Your task to perform on an android device: all mails in gmail Image 0: 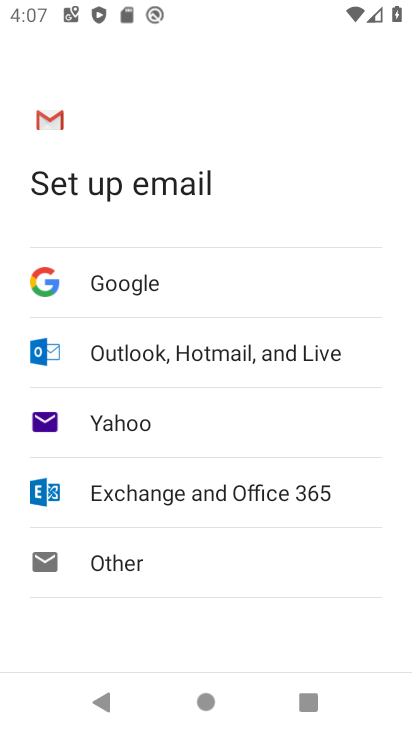
Step 0: press home button
Your task to perform on an android device: all mails in gmail Image 1: 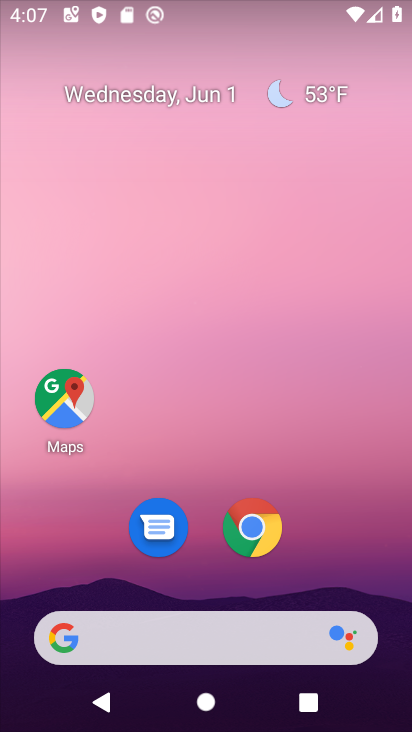
Step 1: drag from (305, 543) to (351, 42)
Your task to perform on an android device: all mails in gmail Image 2: 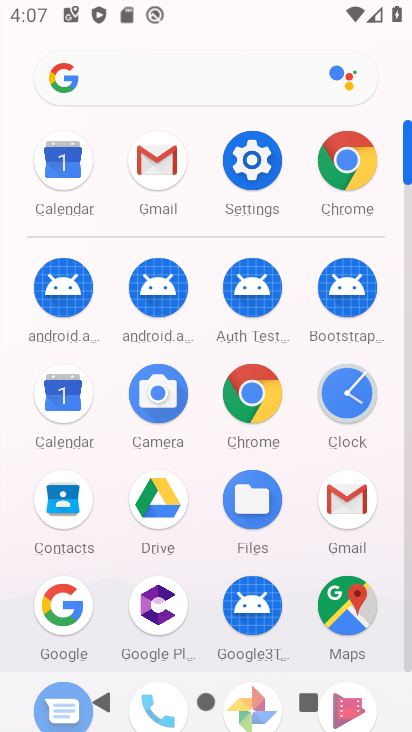
Step 2: click (161, 157)
Your task to perform on an android device: all mails in gmail Image 3: 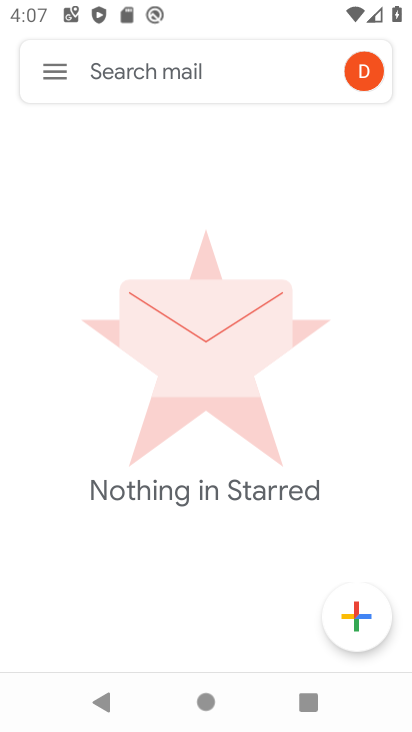
Step 3: click (56, 66)
Your task to perform on an android device: all mails in gmail Image 4: 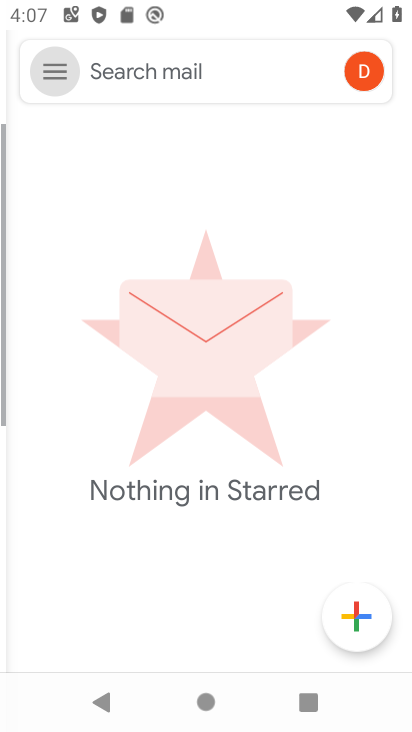
Step 4: drag from (56, 66) to (83, 630)
Your task to perform on an android device: all mails in gmail Image 5: 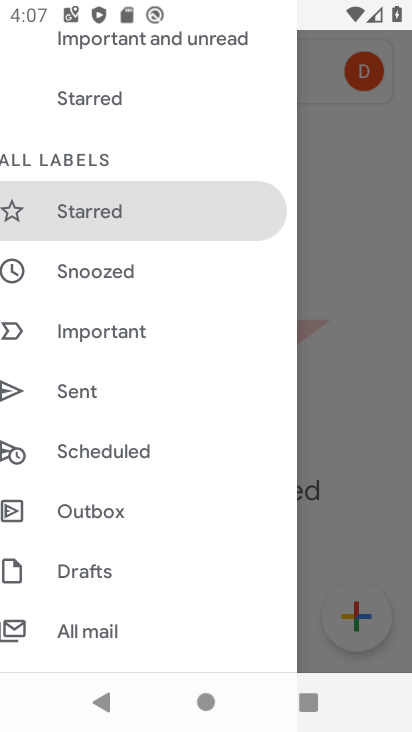
Step 5: click (83, 630)
Your task to perform on an android device: all mails in gmail Image 6: 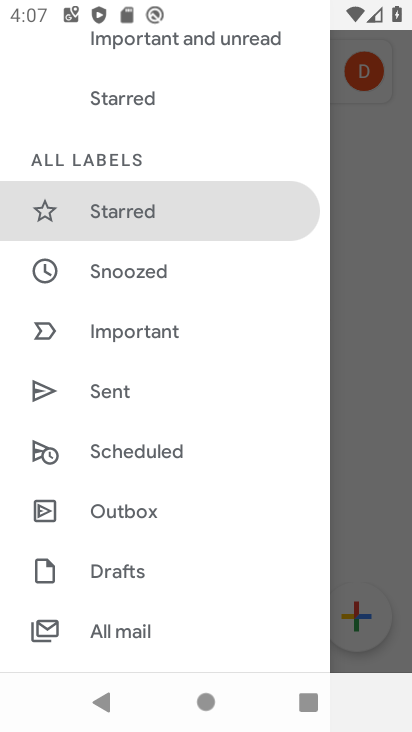
Step 6: click (118, 626)
Your task to perform on an android device: all mails in gmail Image 7: 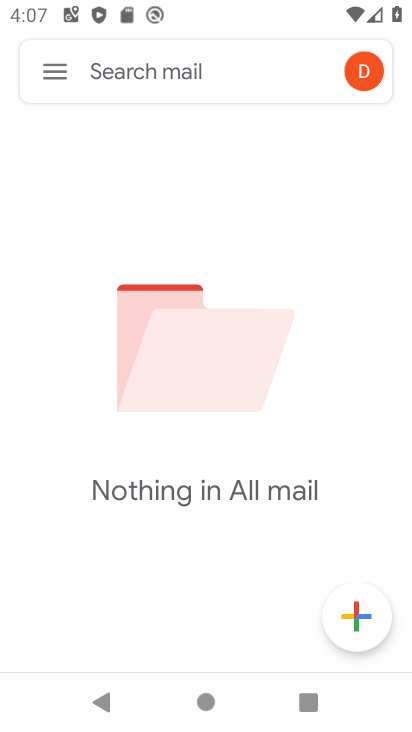
Step 7: task complete